Your task to perform on an android device: visit the assistant section in the google photos Image 0: 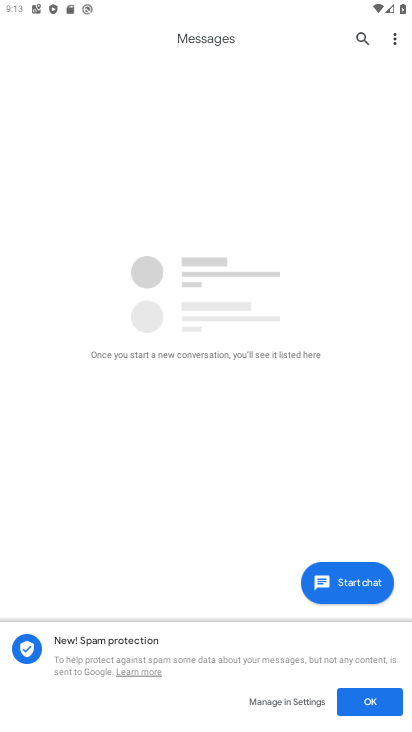
Step 0: press home button
Your task to perform on an android device: visit the assistant section in the google photos Image 1: 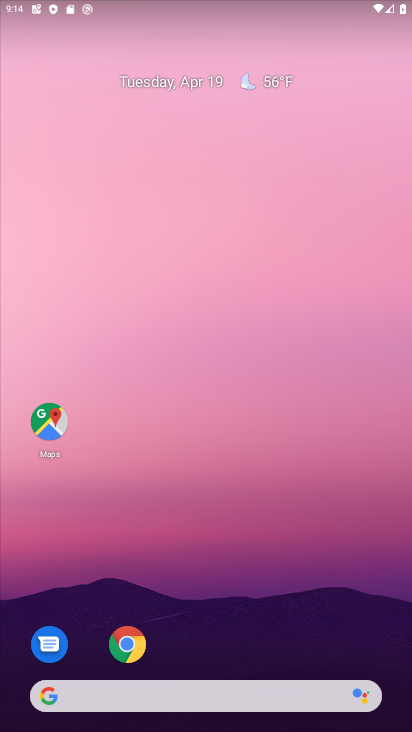
Step 1: drag from (219, 639) to (228, 197)
Your task to perform on an android device: visit the assistant section in the google photos Image 2: 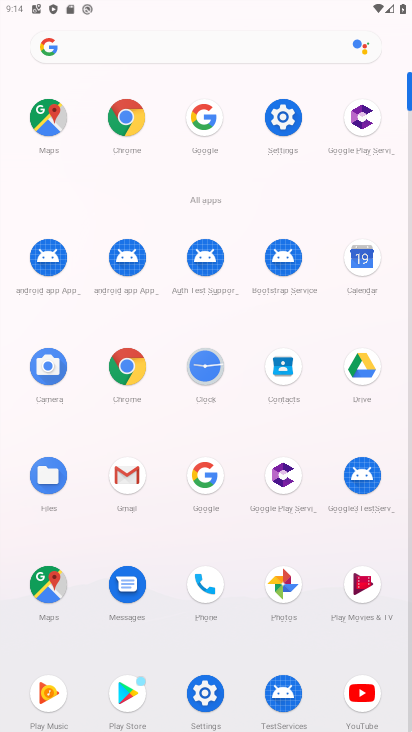
Step 2: click (276, 590)
Your task to perform on an android device: visit the assistant section in the google photos Image 3: 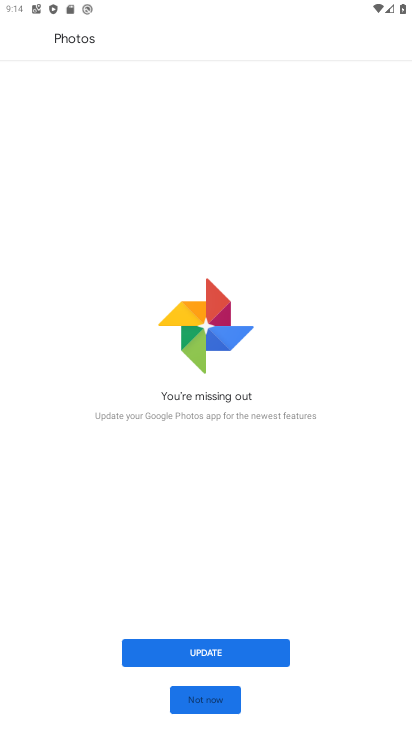
Step 3: click (299, 406)
Your task to perform on an android device: visit the assistant section in the google photos Image 4: 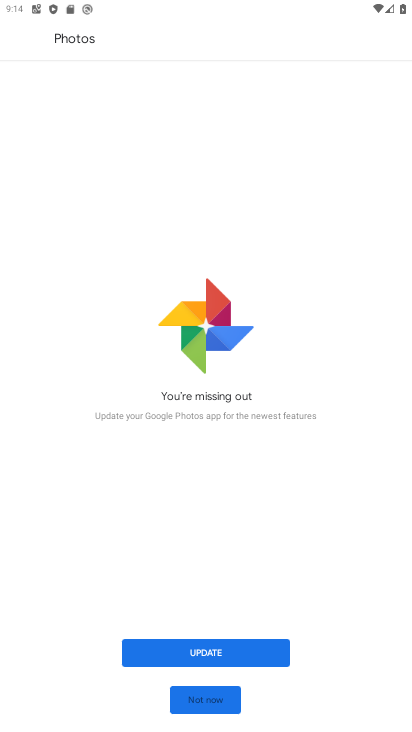
Step 4: click (212, 707)
Your task to perform on an android device: visit the assistant section in the google photos Image 5: 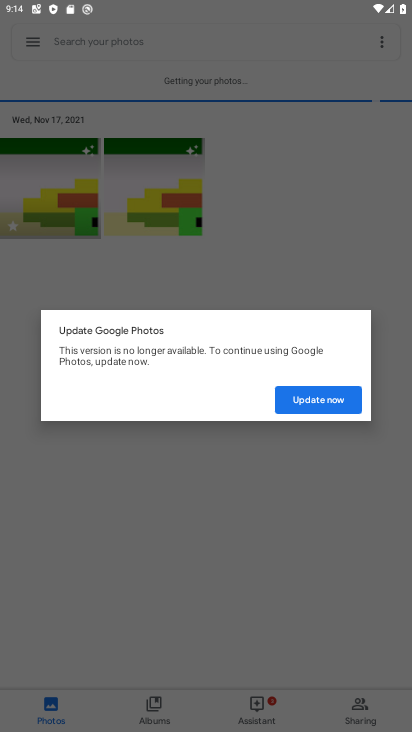
Step 5: click (305, 410)
Your task to perform on an android device: visit the assistant section in the google photos Image 6: 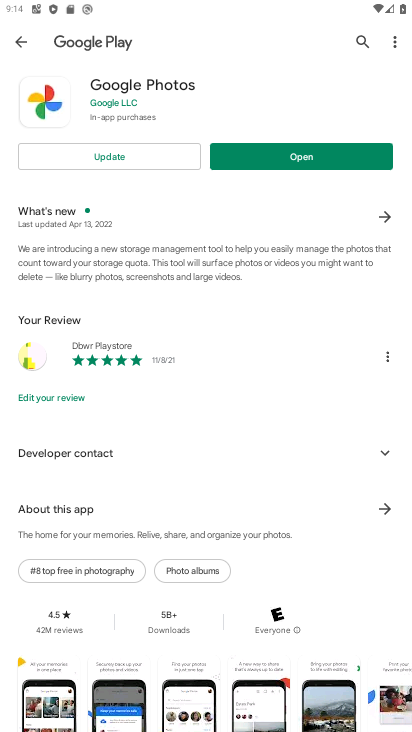
Step 6: click (294, 155)
Your task to perform on an android device: visit the assistant section in the google photos Image 7: 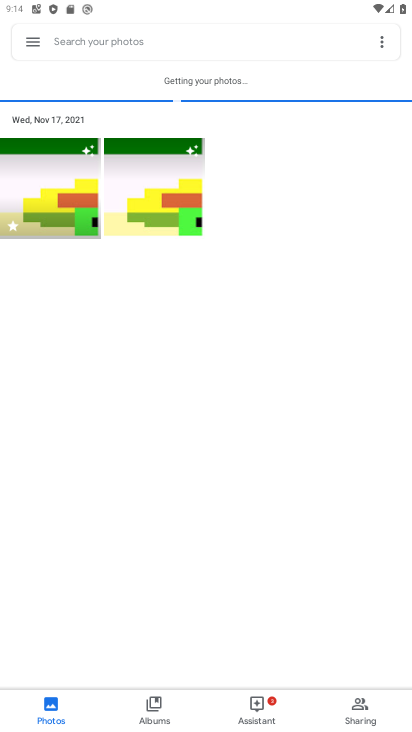
Step 7: click (263, 699)
Your task to perform on an android device: visit the assistant section in the google photos Image 8: 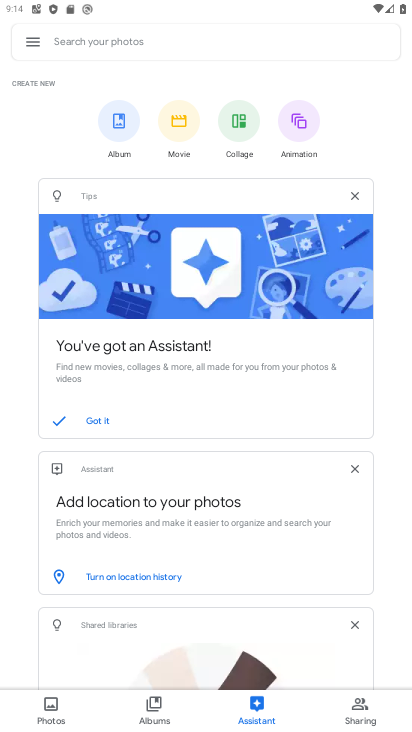
Step 8: task complete